Your task to perform on an android device: add a label to a message in the gmail app Image 0: 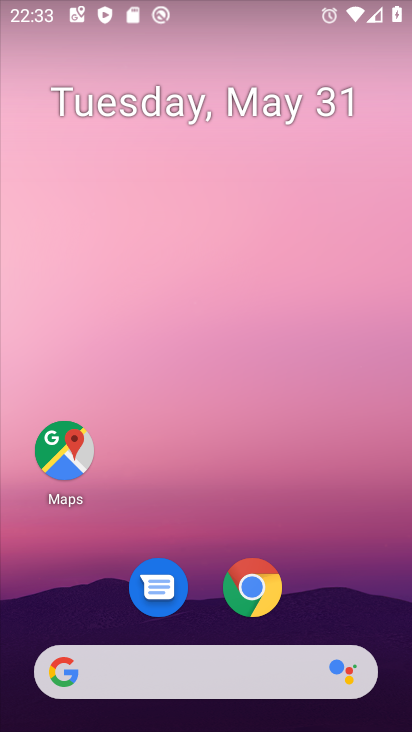
Step 0: drag from (369, 617) to (377, 209)
Your task to perform on an android device: add a label to a message in the gmail app Image 1: 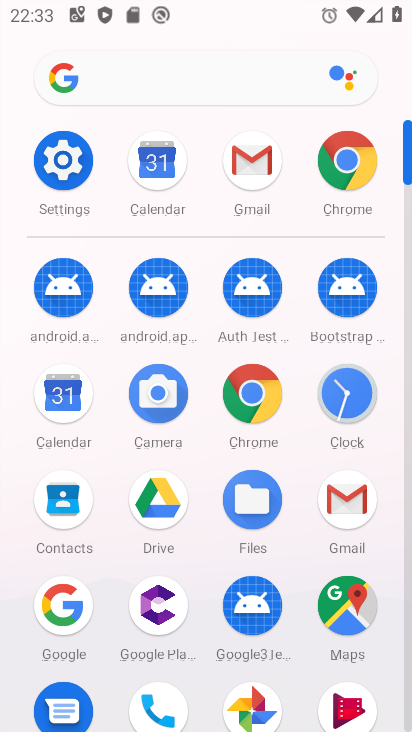
Step 1: click (349, 517)
Your task to perform on an android device: add a label to a message in the gmail app Image 2: 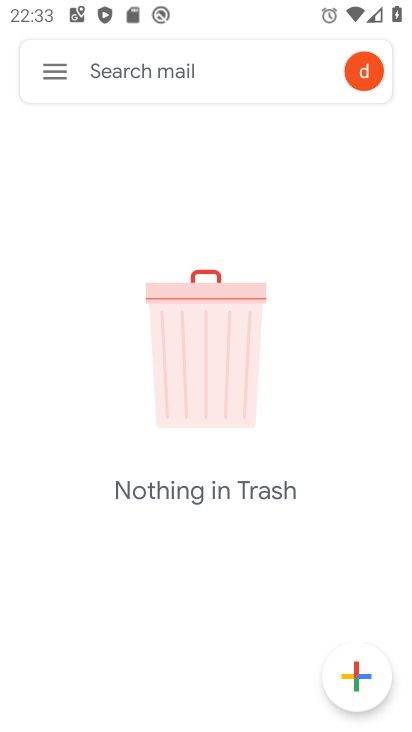
Step 2: click (57, 80)
Your task to perform on an android device: add a label to a message in the gmail app Image 3: 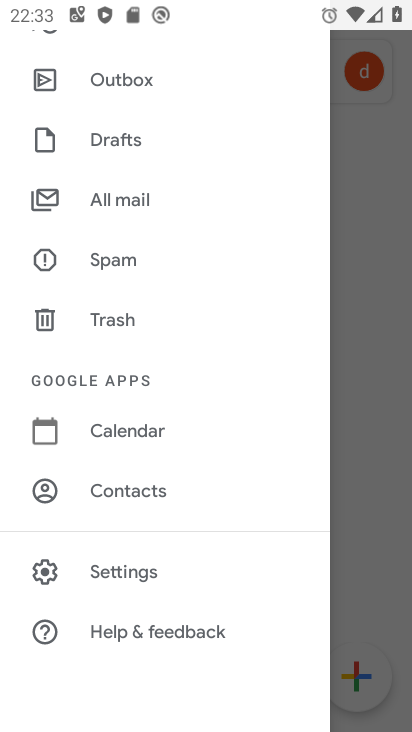
Step 3: drag from (256, 198) to (249, 331)
Your task to perform on an android device: add a label to a message in the gmail app Image 4: 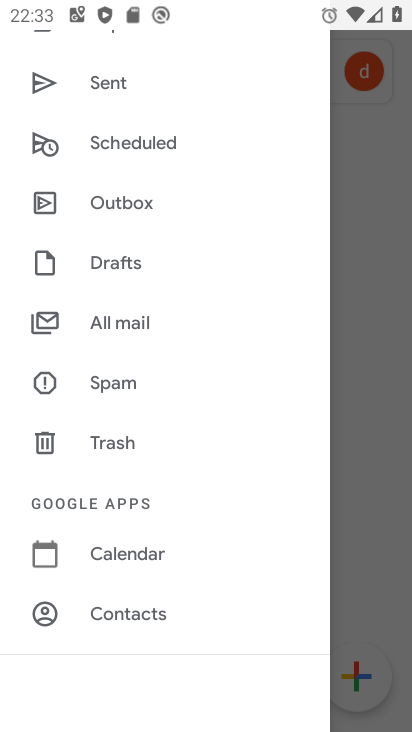
Step 4: drag from (240, 175) to (239, 312)
Your task to perform on an android device: add a label to a message in the gmail app Image 5: 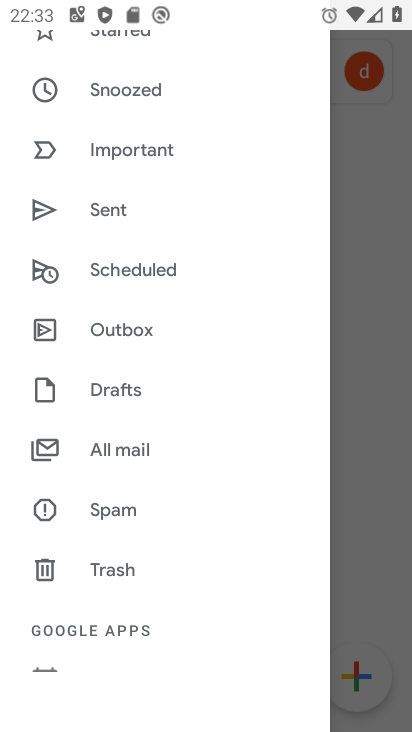
Step 5: drag from (230, 172) to (237, 318)
Your task to perform on an android device: add a label to a message in the gmail app Image 6: 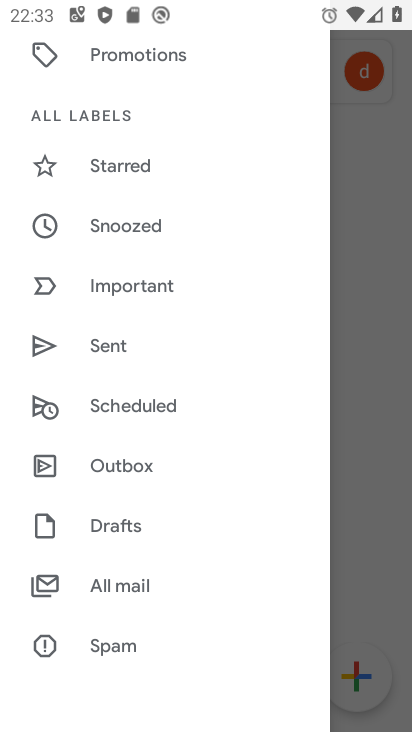
Step 6: drag from (244, 131) to (251, 283)
Your task to perform on an android device: add a label to a message in the gmail app Image 7: 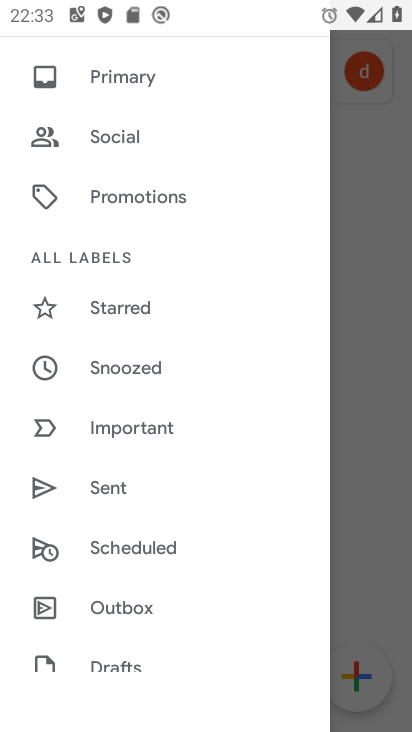
Step 7: drag from (238, 120) to (242, 248)
Your task to perform on an android device: add a label to a message in the gmail app Image 8: 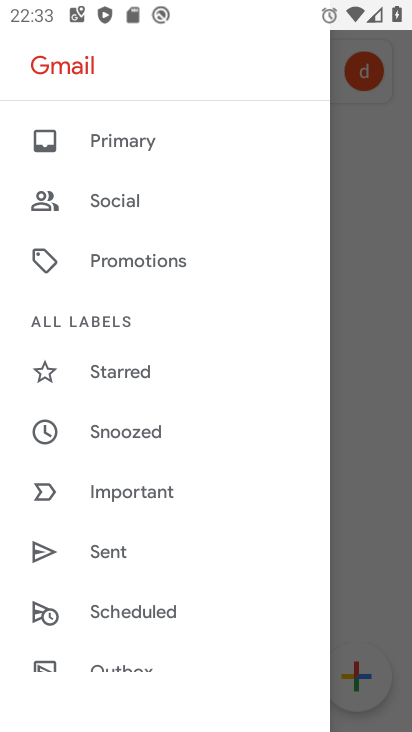
Step 8: drag from (231, 142) to (243, 294)
Your task to perform on an android device: add a label to a message in the gmail app Image 9: 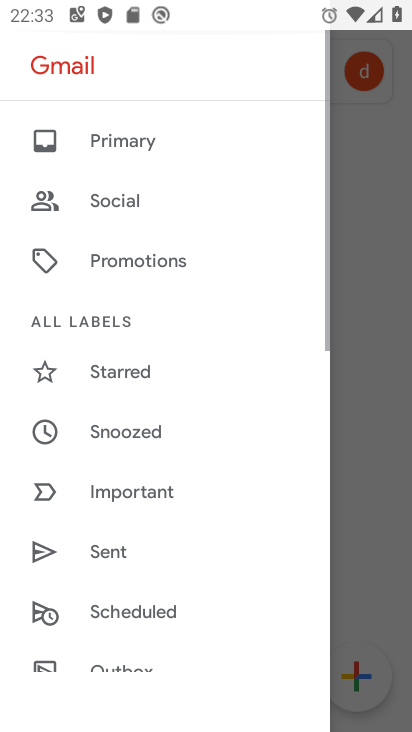
Step 9: click (160, 146)
Your task to perform on an android device: add a label to a message in the gmail app Image 10: 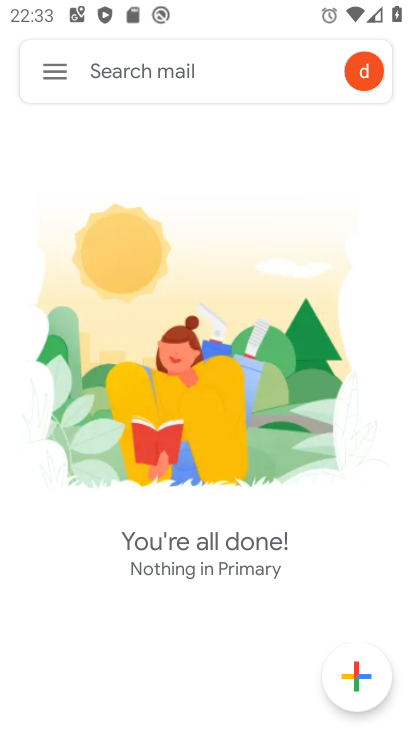
Step 10: task complete